Your task to perform on an android device: Open Maps and search for coffee Image 0: 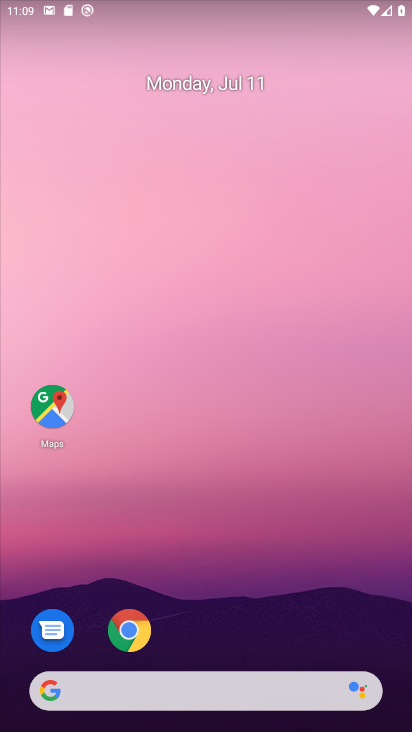
Step 0: drag from (208, 660) to (258, 132)
Your task to perform on an android device: Open Maps and search for coffee Image 1: 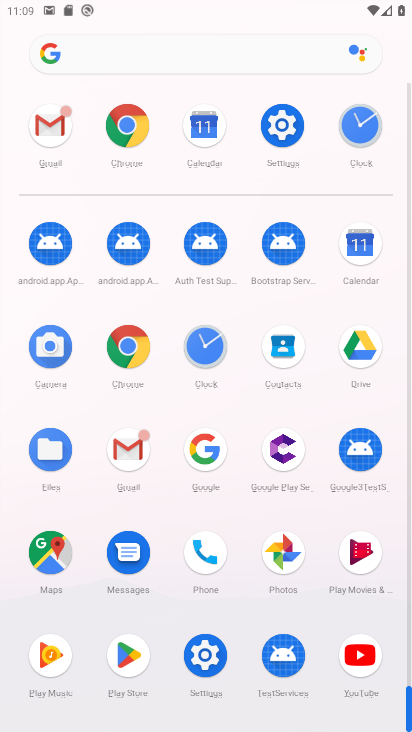
Step 1: click (53, 551)
Your task to perform on an android device: Open Maps and search for coffee Image 2: 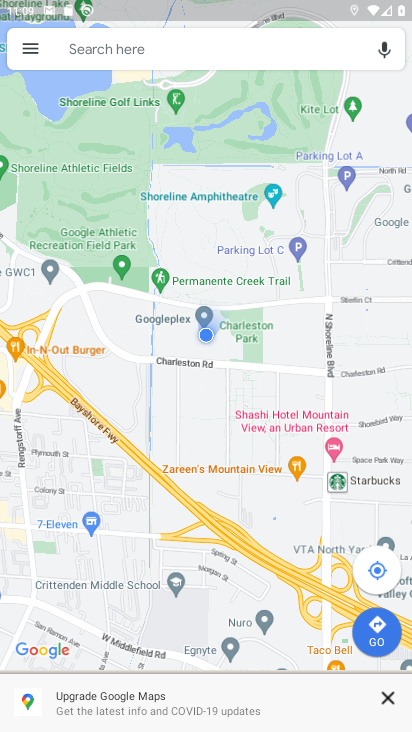
Step 2: click (240, 51)
Your task to perform on an android device: Open Maps and search for coffee Image 3: 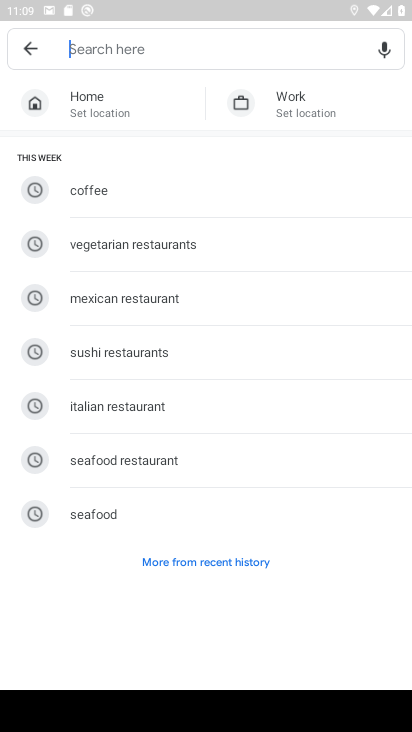
Step 3: click (102, 203)
Your task to perform on an android device: Open Maps and search for coffee Image 4: 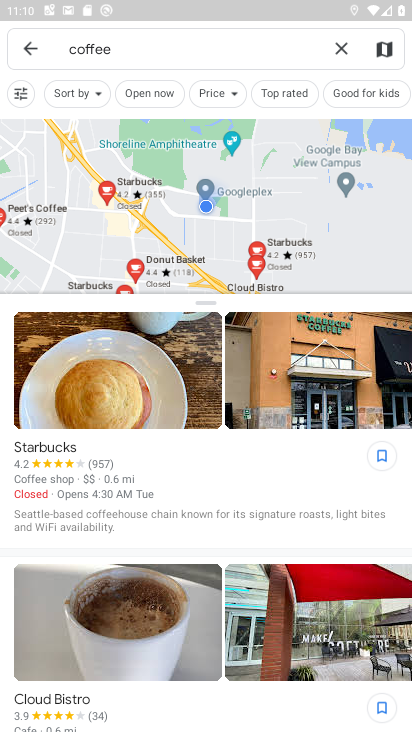
Step 4: task complete